Your task to perform on an android device: Open calendar and show me the second week of next month Image 0: 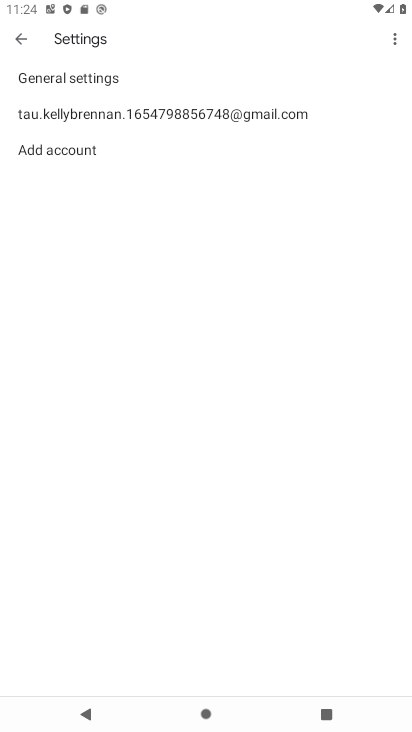
Step 0: press home button
Your task to perform on an android device: Open calendar and show me the second week of next month Image 1: 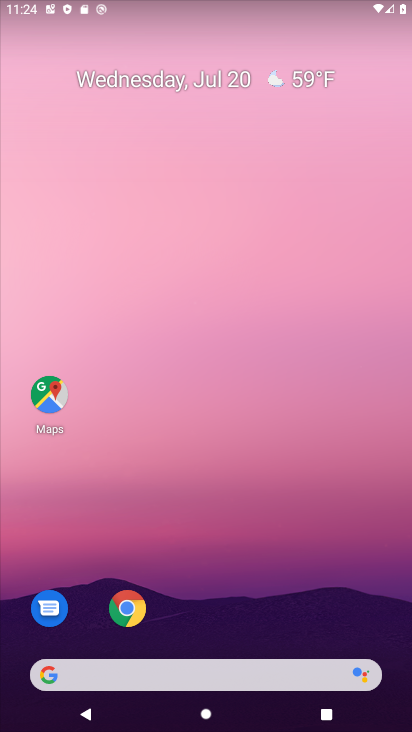
Step 1: drag from (261, 661) to (190, 0)
Your task to perform on an android device: Open calendar and show me the second week of next month Image 2: 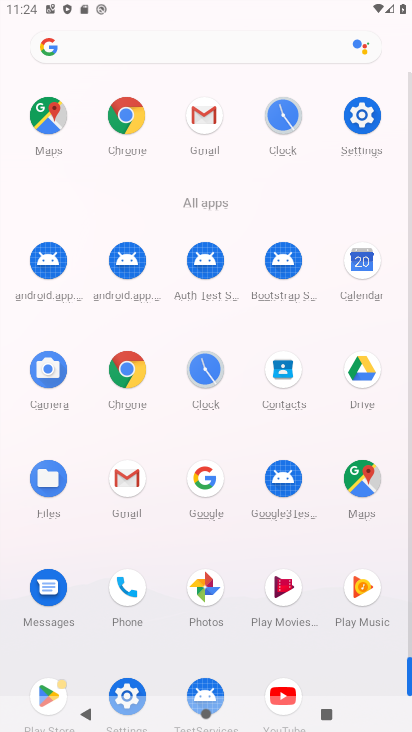
Step 2: click (374, 269)
Your task to perform on an android device: Open calendar and show me the second week of next month Image 3: 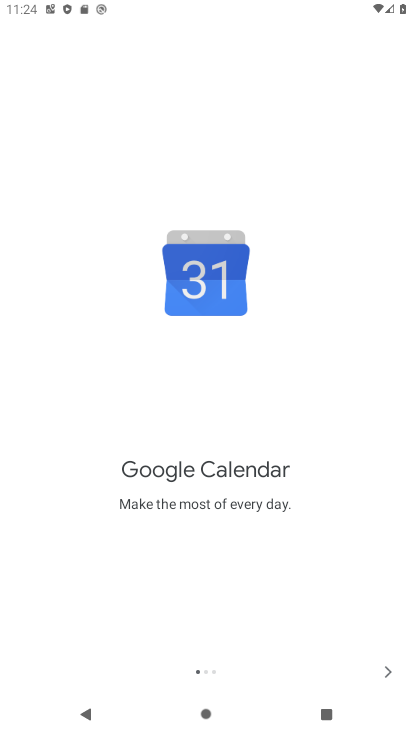
Step 3: click (388, 672)
Your task to perform on an android device: Open calendar and show me the second week of next month Image 4: 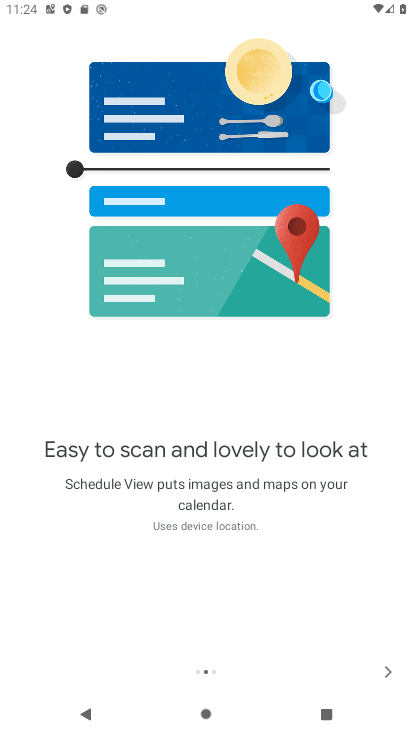
Step 4: click (388, 669)
Your task to perform on an android device: Open calendar and show me the second week of next month Image 5: 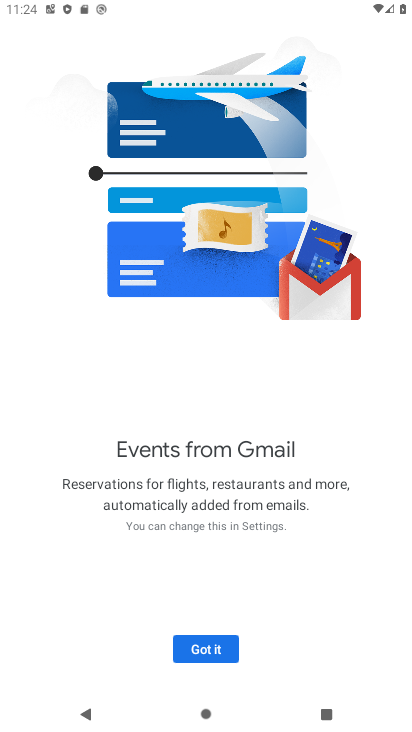
Step 5: click (214, 654)
Your task to perform on an android device: Open calendar and show me the second week of next month Image 6: 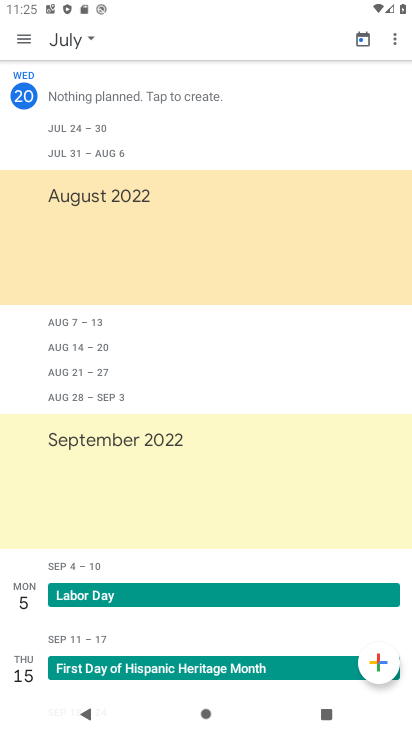
Step 6: click (77, 47)
Your task to perform on an android device: Open calendar and show me the second week of next month Image 7: 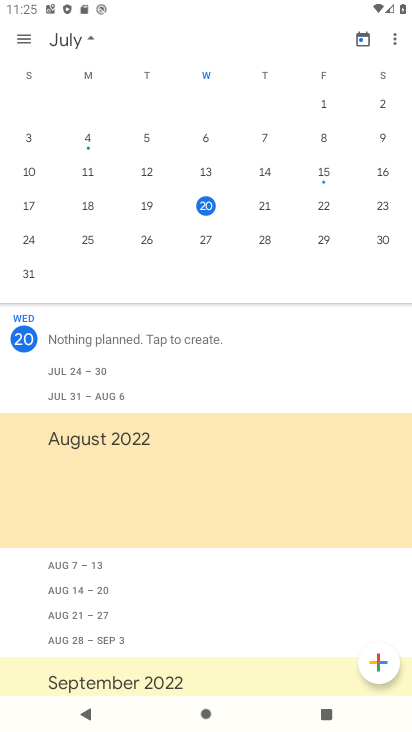
Step 7: drag from (299, 222) to (7, 62)
Your task to perform on an android device: Open calendar and show me the second week of next month Image 8: 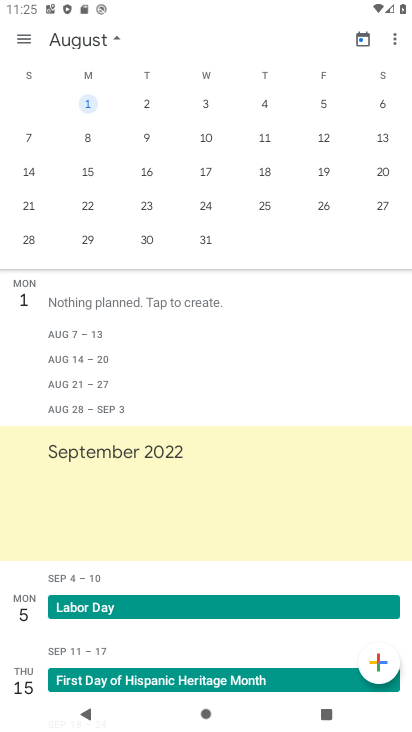
Step 8: click (26, 169)
Your task to perform on an android device: Open calendar and show me the second week of next month Image 9: 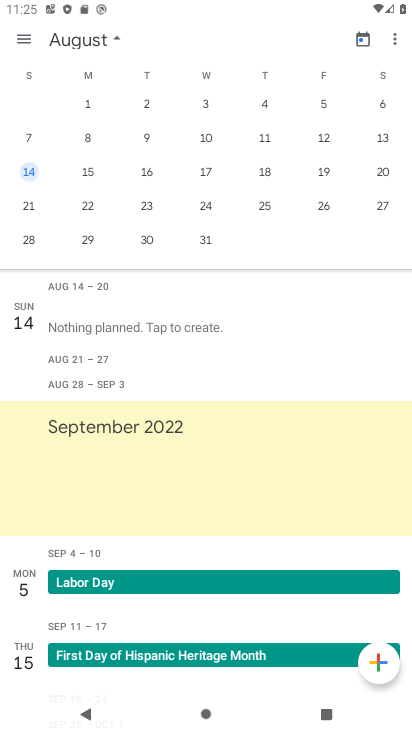
Step 9: task complete